Your task to perform on an android device: Open Google Maps and go to "Timeline" Image 0: 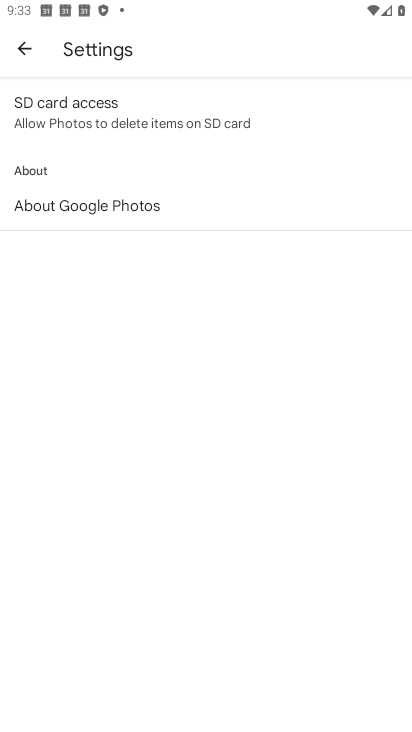
Step 0: press home button
Your task to perform on an android device: Open Google Maps and go to "Timeline" Image 1: 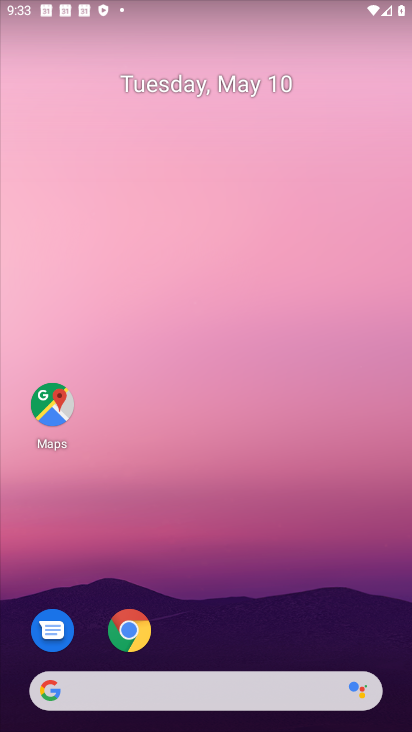
Step 1: click (55, 395)
Your task to perform on an android device: Open Google Maps and go to "Timeline" Image 2: 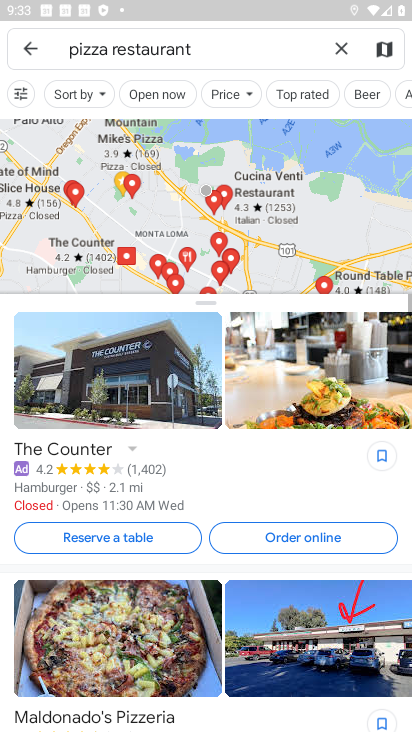
Step 2: click (344, 44)
Your task to perform on an android device: Open Google Maps and go to "Timeline" Image 3: 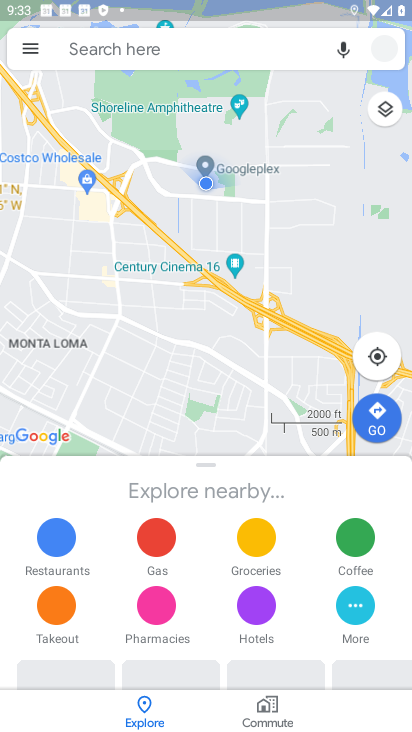
Step 3: click (34, 50)
Your task to perform on an android device: Open Google Maps and go to "Timeline" Image 4: 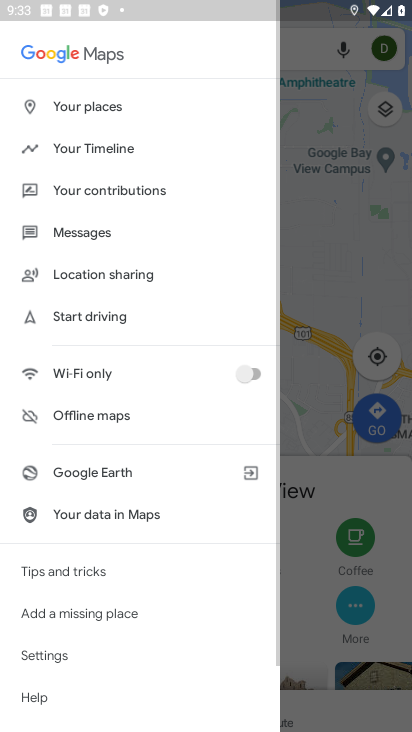
Step 4: click (128, 152)
Your task to perform on an android device: Open Google Maps and go to "Timeline" Image 5: 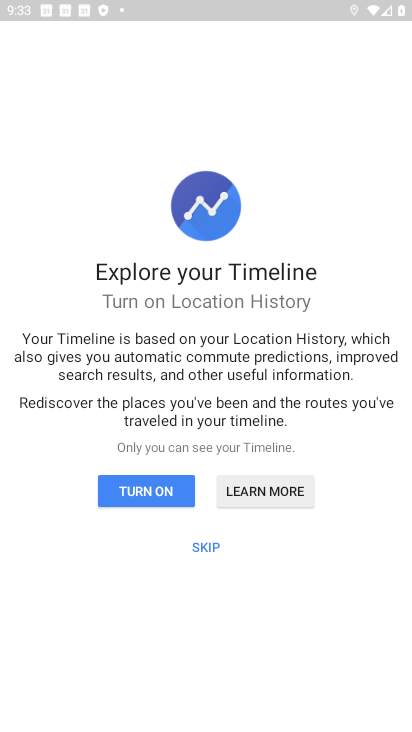
Step 5: click (214, 550)
Your task to perform on an android device: Open Google Maps and go to "Timeline" Image 6: 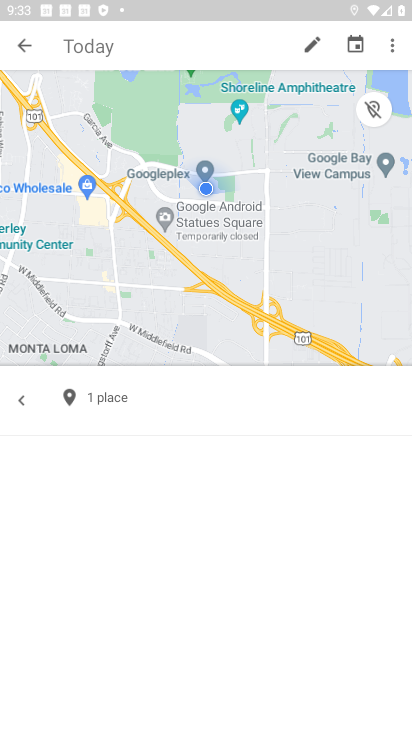
Step 6: task complete